Your task to perform on an android device: Go to wifi settings Image 0: 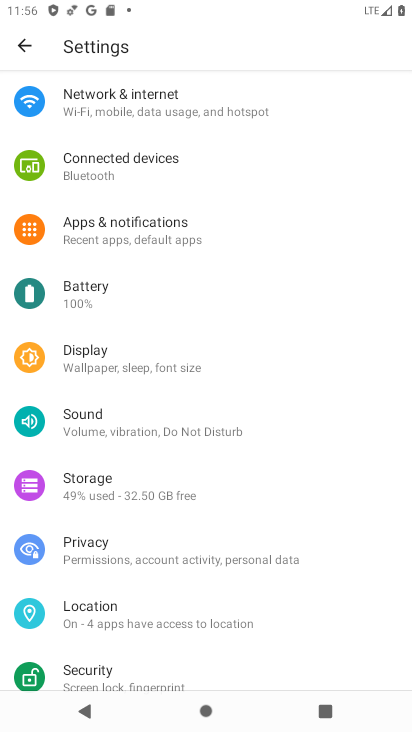
Step 0: click (196, 106)
Your task to perform on an android device: Go to wifi settings Image 1: 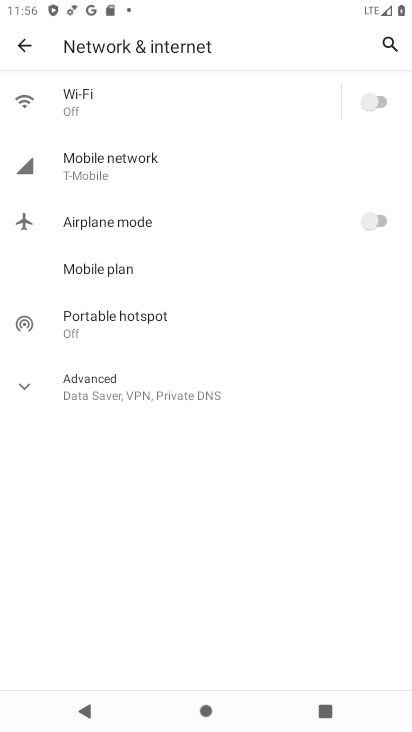
Step 1: task complete